Your task to perform on an android device: Search for flights from NYC to Mexico city Image 0: 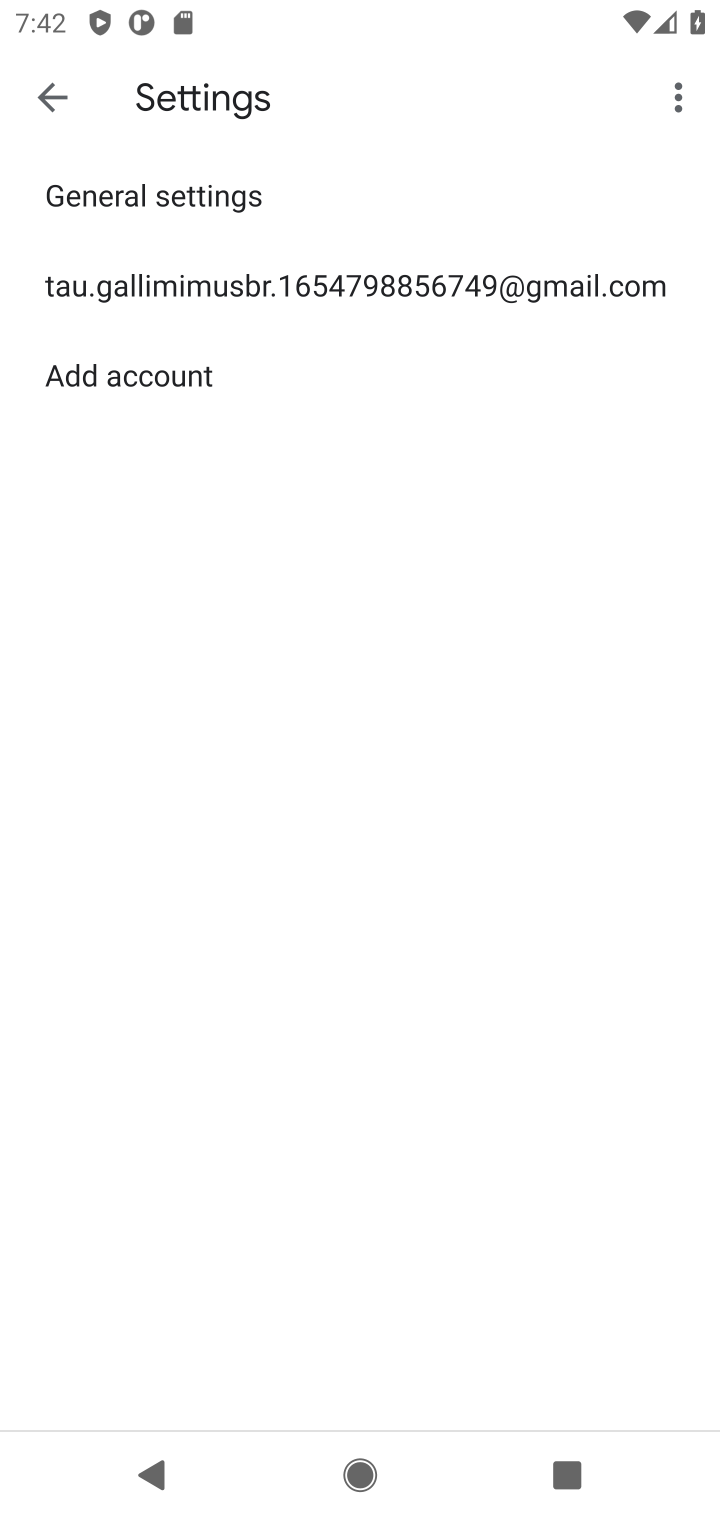
Step 0: press home button
Your task to perform on an android device: Search for flights from NYC to Mexico city Image 1: 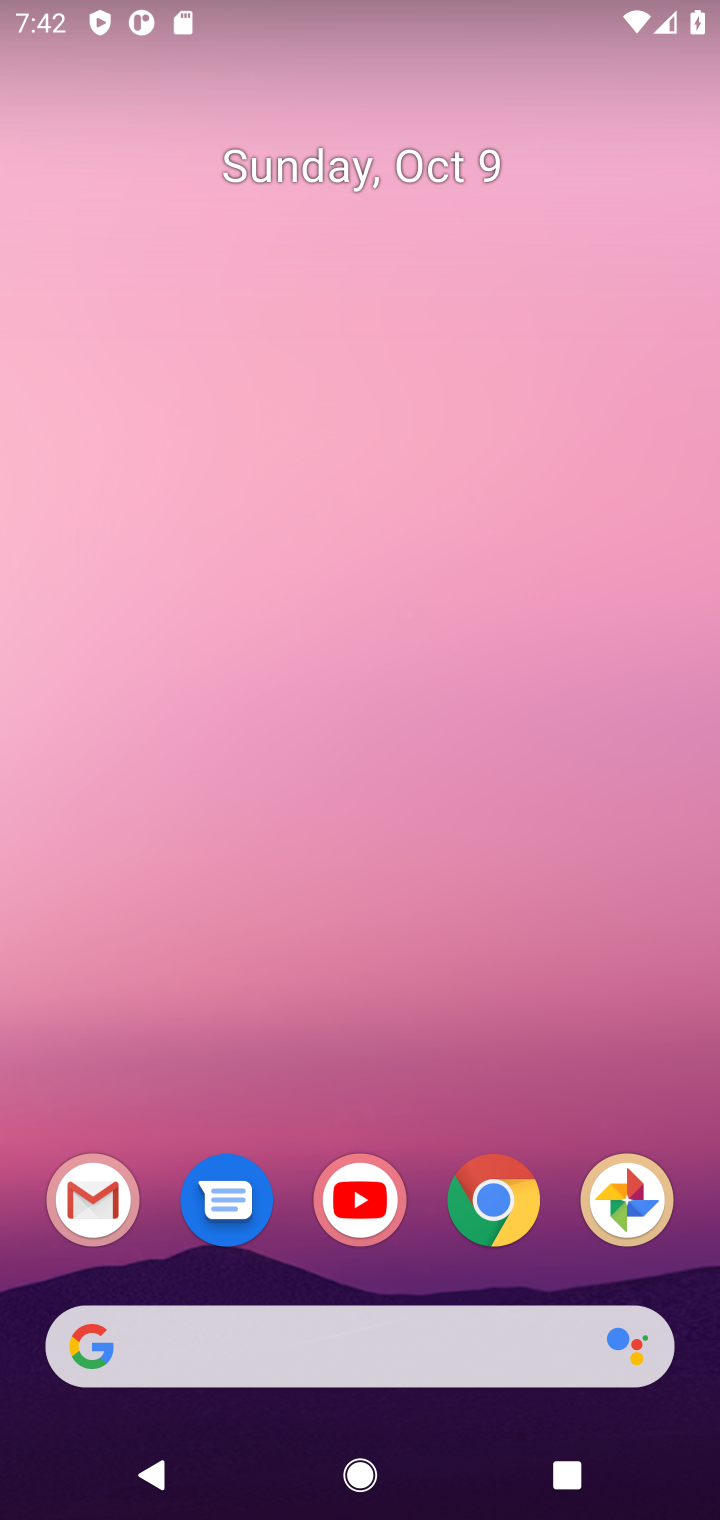
Step 1: click (508, 1217)
Your task to perform on an android device: Search for flights from NYC to Mexico city Image 2: 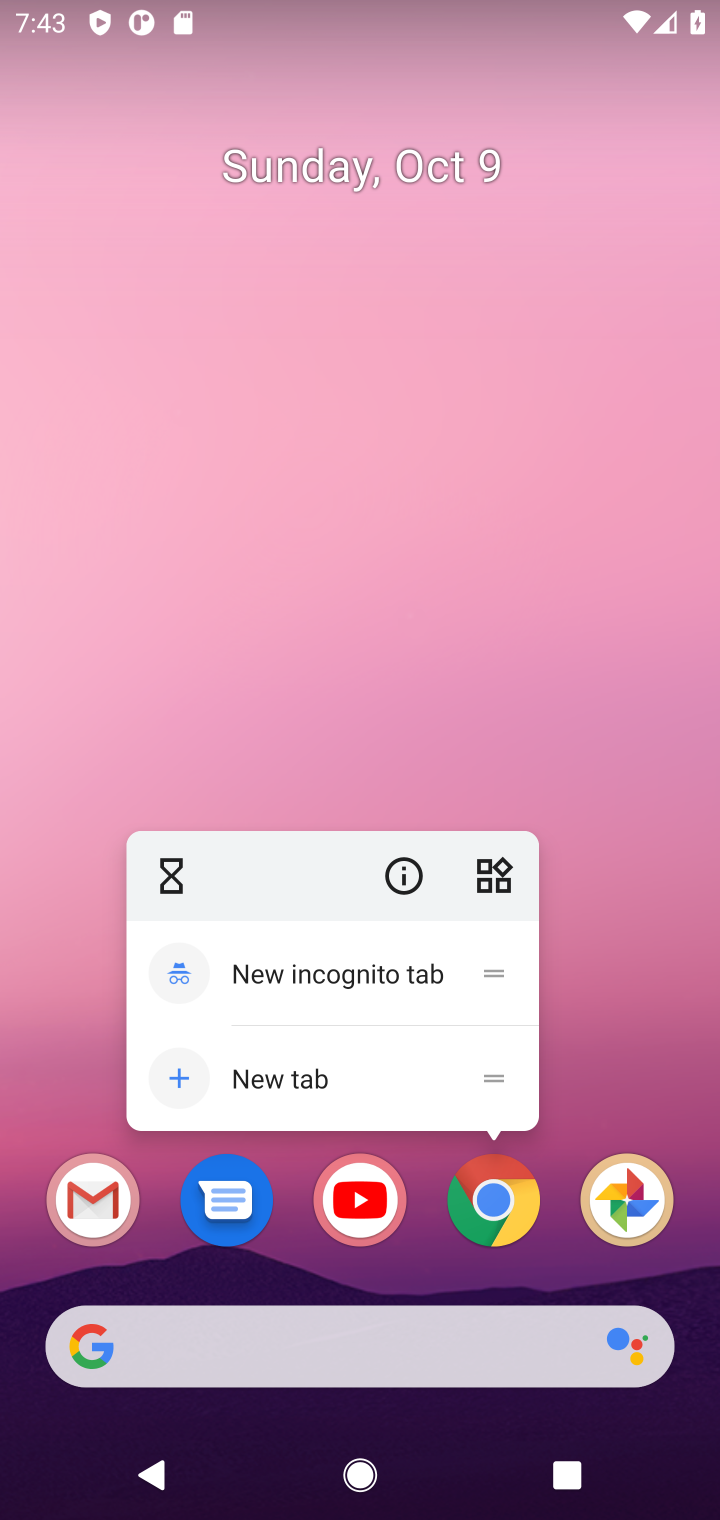
Step 2: click (498, 1202)
Your task to perform on an android device: Search for flights from NYC to Mexico city Image 3: 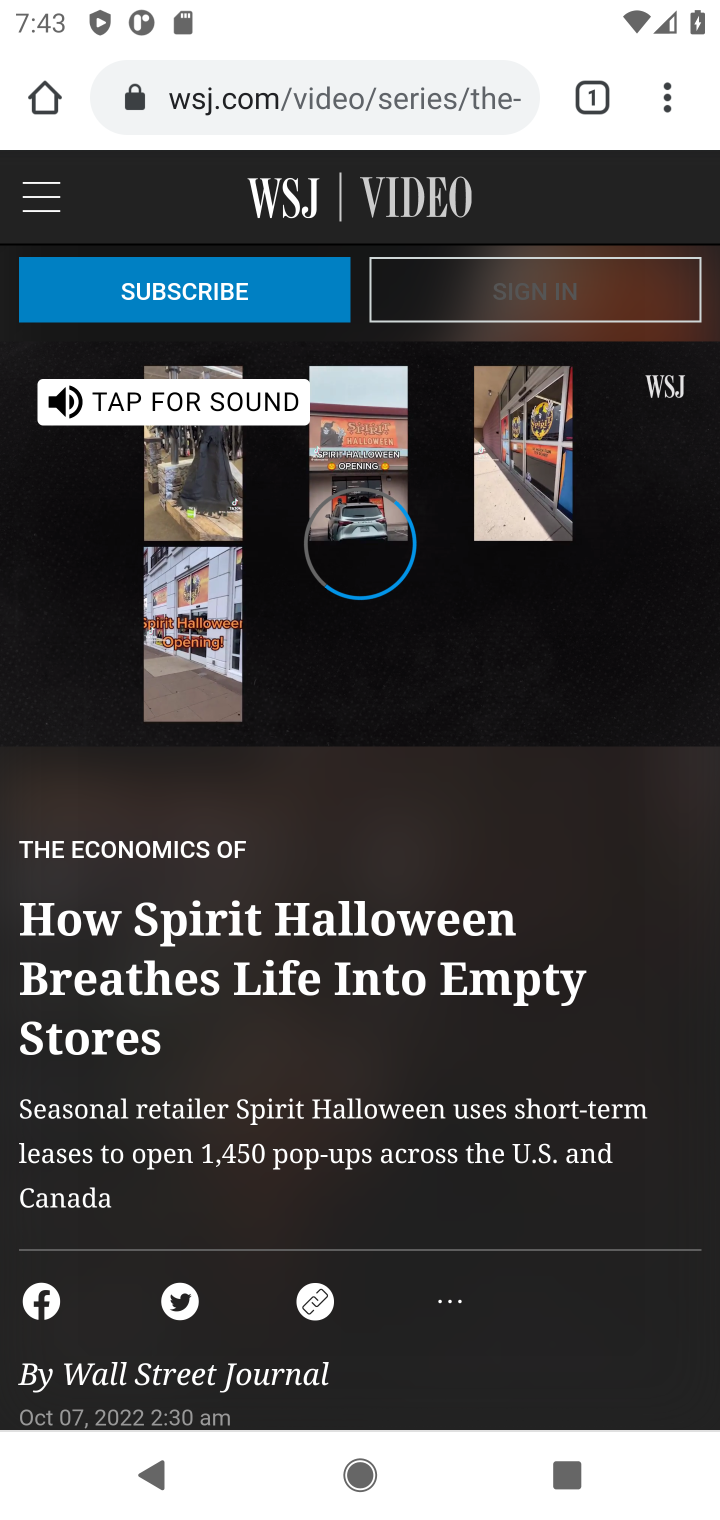
Step 3: click (457, 87)
Your task to perform on an android device: Search for flights from NYC to Mexico city Image 4: 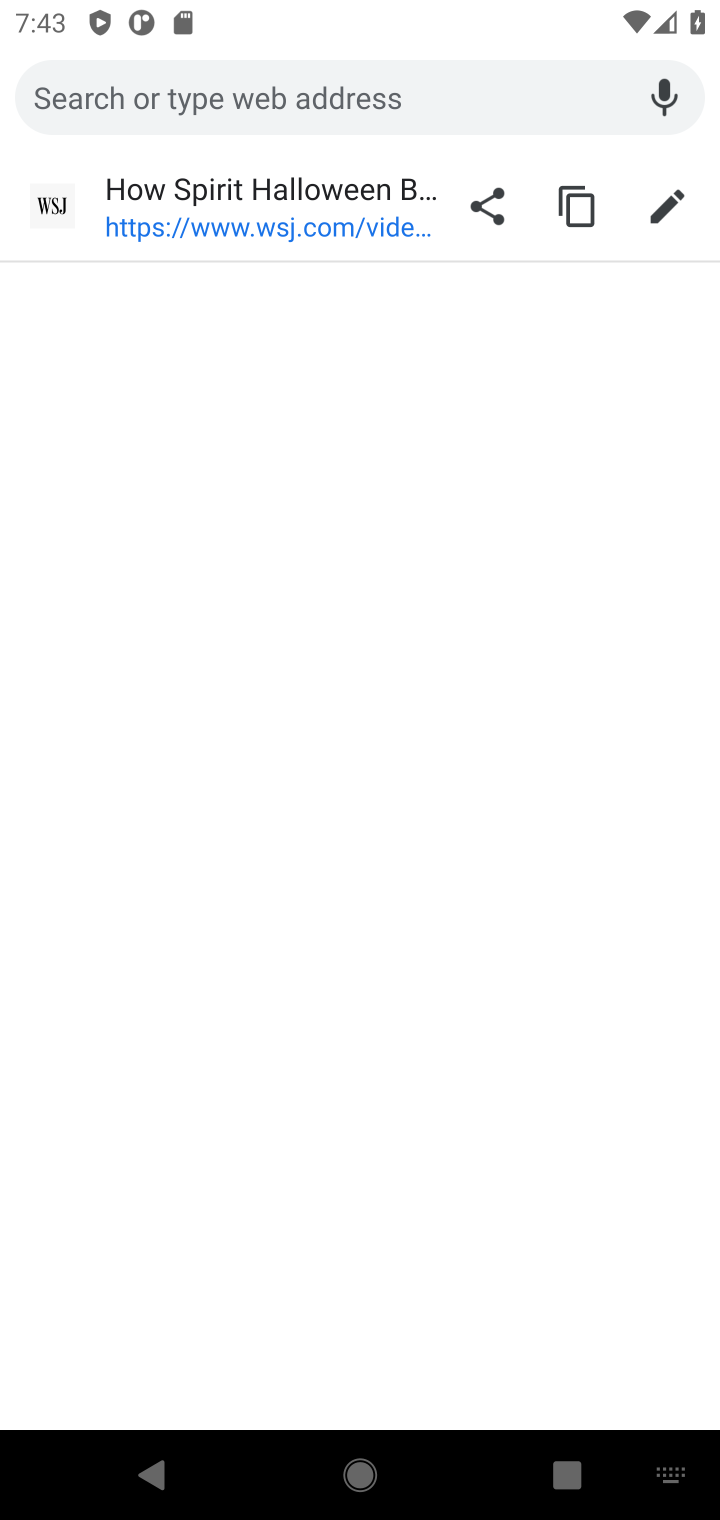
Step 4: type "lights from NYC to Mexico city"
Your task to perform on an android device: Search for flights from NYC to Mexico city Image 5: 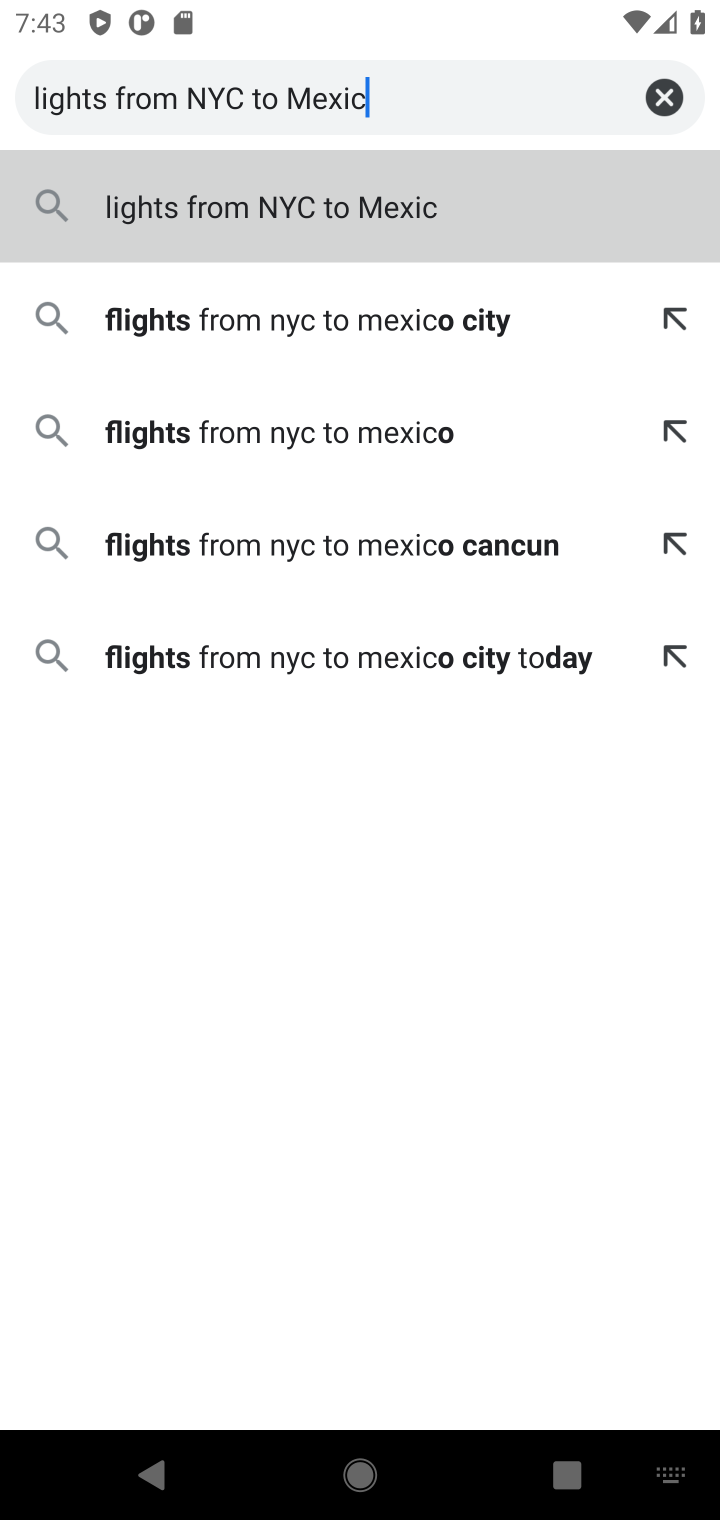
Step 5: click (297, 316)
Your task to perform on an android device: Search for flights from NYC to Mexico city Image 6: 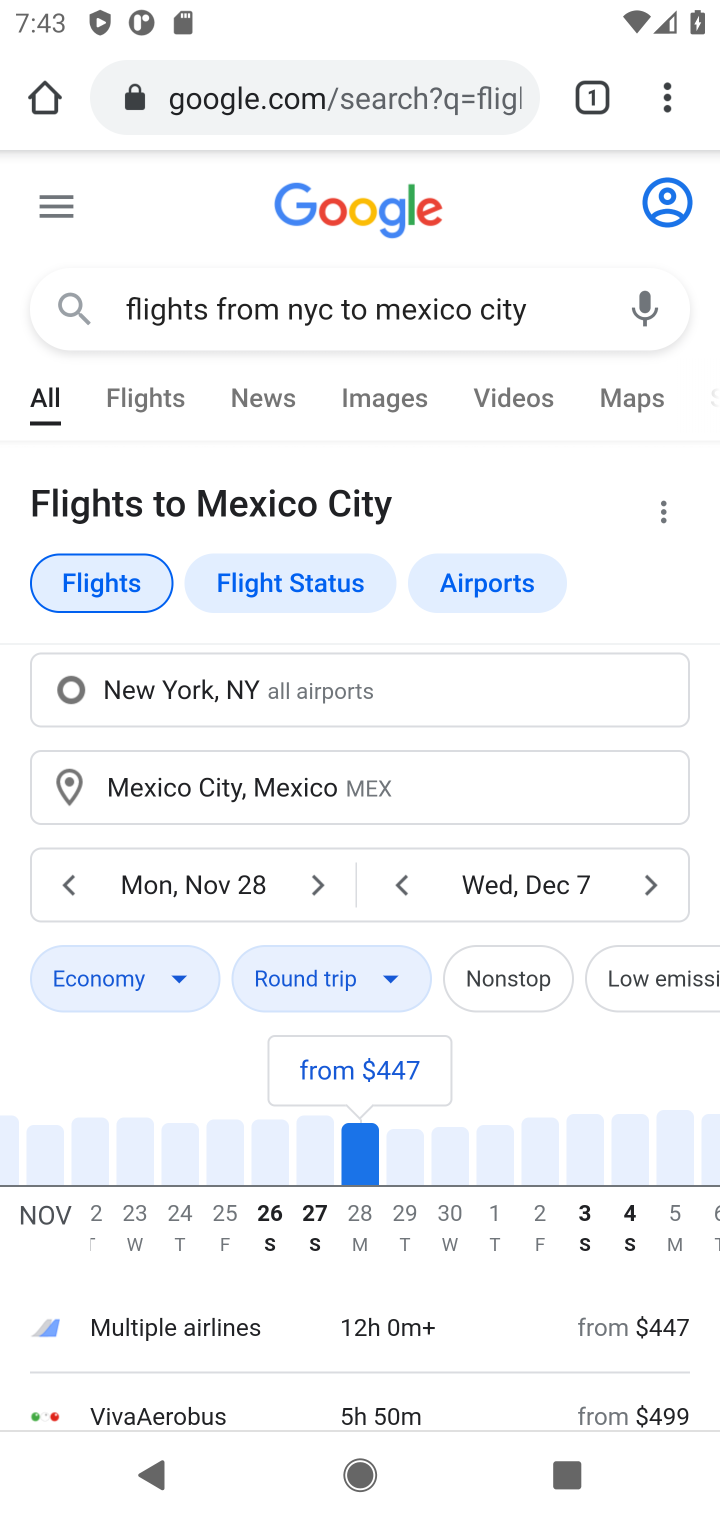
Step 6: task complete